Your task to perform on an android device: What's the weather? Image 0: 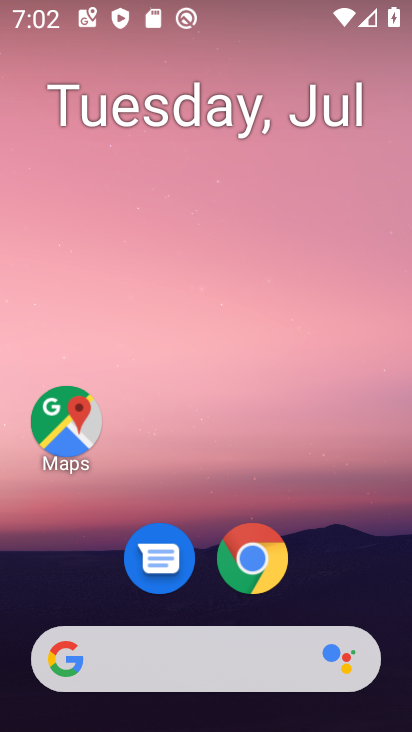
Step 0: click (134, 666)
Your task to perform on an android device: What's the weather? Image 1: 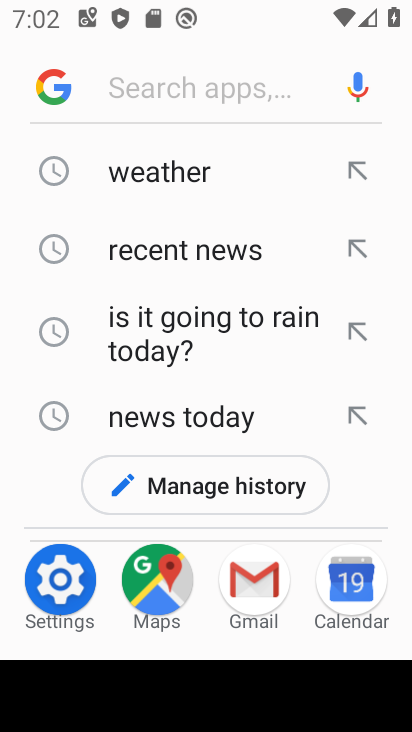
Step 1: click (157, 172)
Your task to perform on an android device: What's the weather? Image 2: 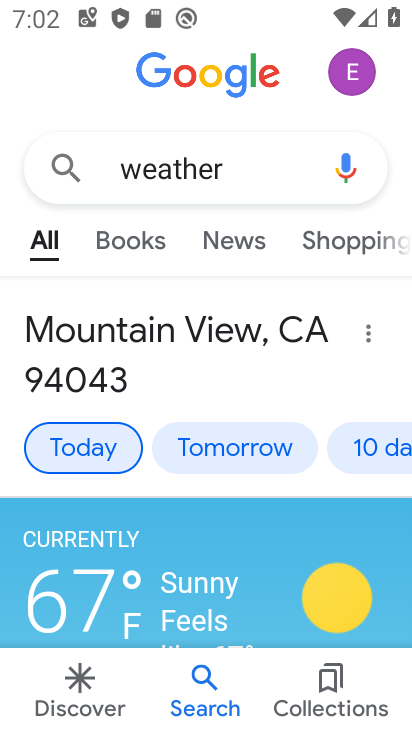
Step 2: task complete